Your task to perform on an android device: check google app version Image 0: 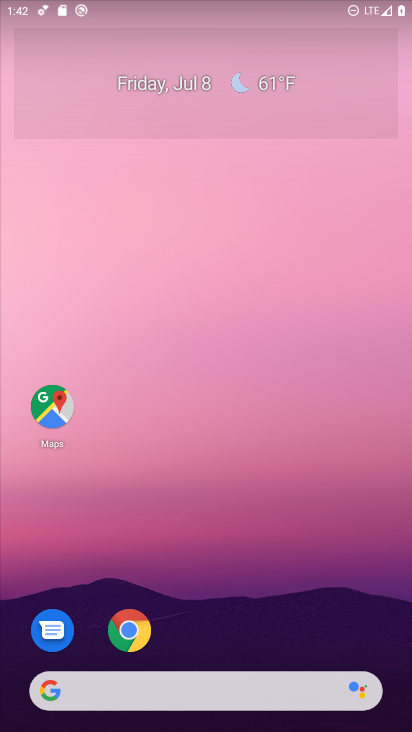
Step 0: drag from (388, 642) to (77, 0)
Your task to perform on an android device: check google app version Image 1: 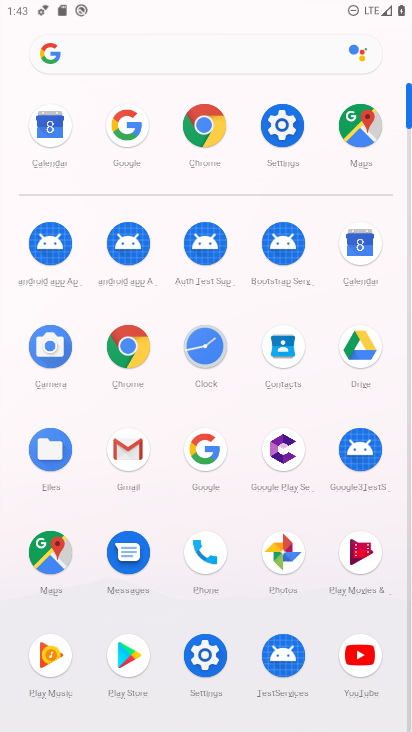
Step 1: click (196, 458)
Your task to perform on an android device: check google app version Image 2: 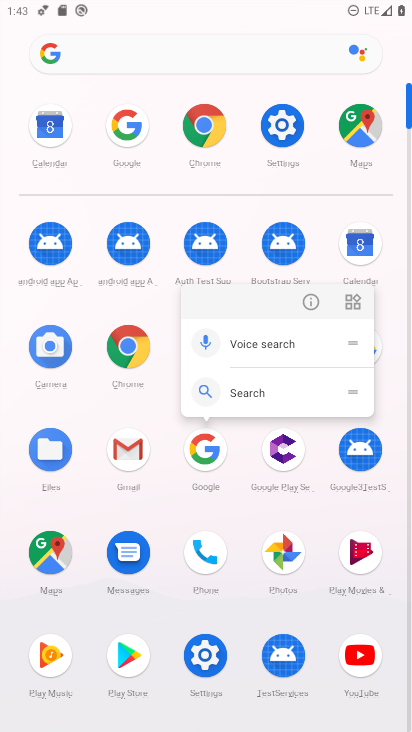
Step 2: click (314, 296)
Your task to perform on an android device: check google app version Image 3: 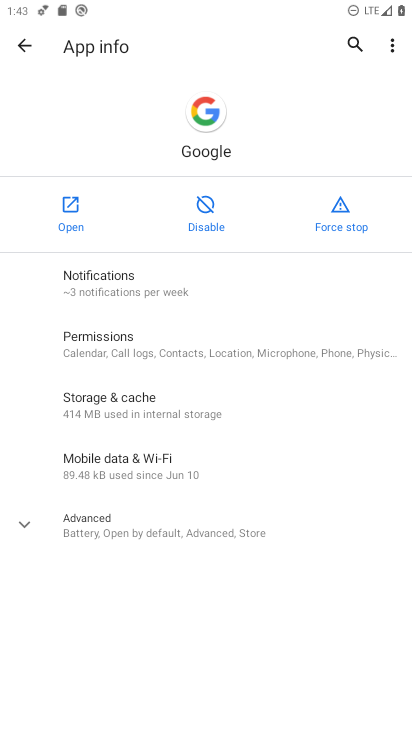
Step 3: click (121, 526)
Your task to perform on an android device: check google app version Image 4: 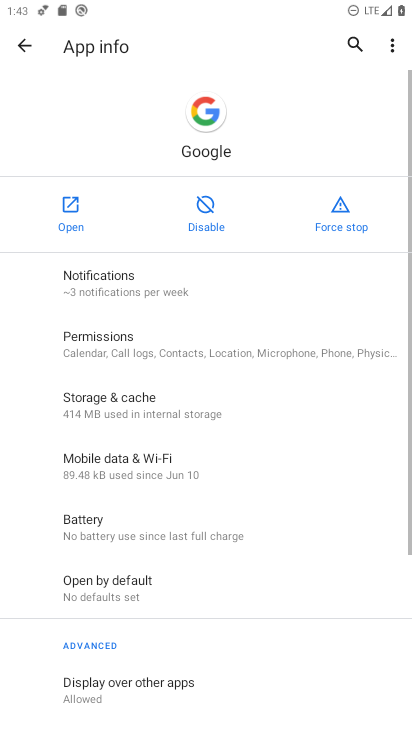
Step 4: task complete